Your task to perform on an android device: What is the recent news? Image 0: 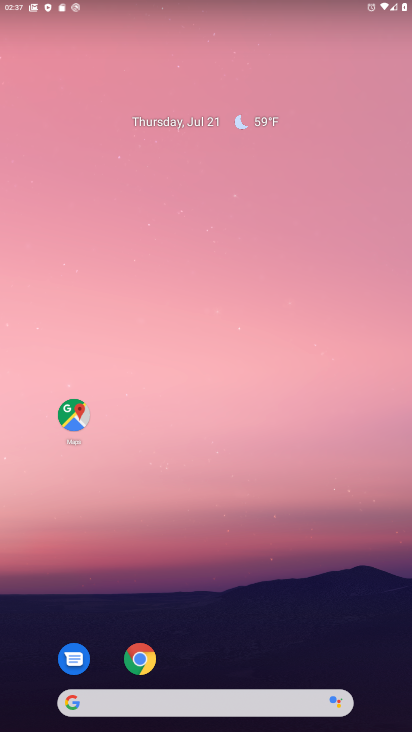
Step 0: drag from (313, 663) to (266, 166)
Your task to perform on an android device: What is the recent news? Image 1: 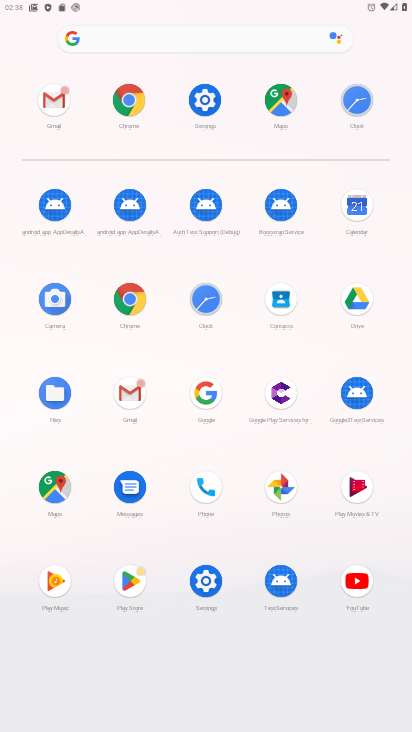
Step 1: click (131, 97)
Your task to perform on an android device: What is the recent news? Image 2: 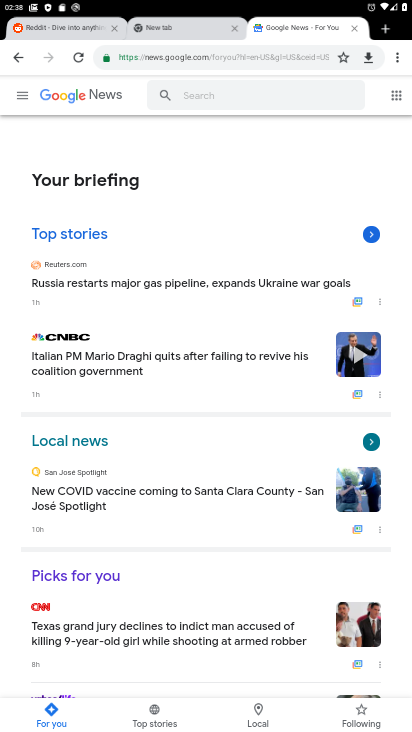
Step 2: click (206, 52)
Your task to perform on an android device: What is the recent news? Image 3: 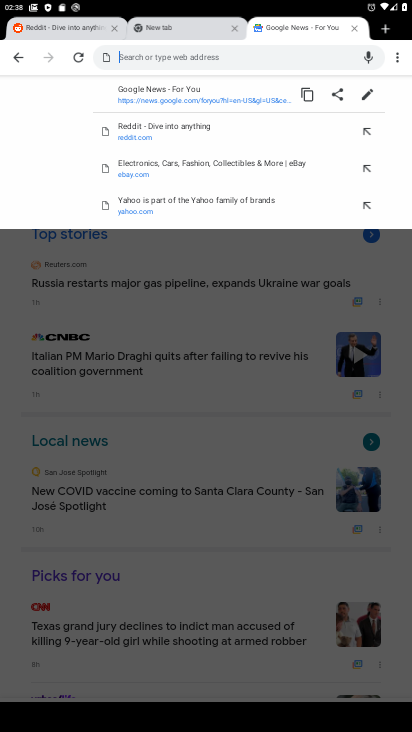
Step 3: type "news"
Your task to perform on an android device: What is the recent news? Image 4: 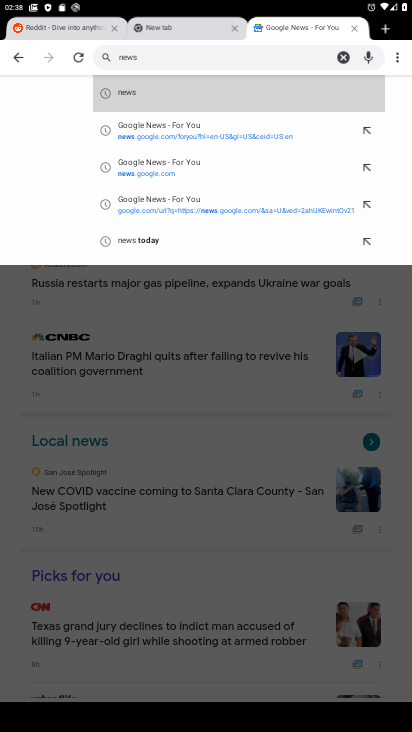
Step 4: click (133, 92)
Your task to perform on an android device: What is the recent news? Image 5: 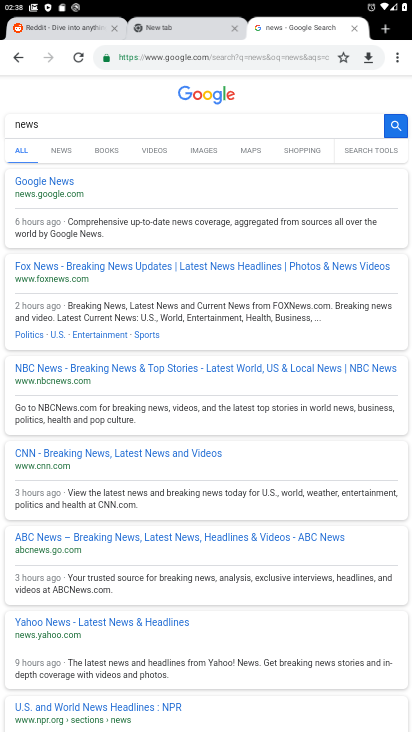
Step 5: click (50, 182)
Your task to perform on an android device: What is the recent news? Image 6: 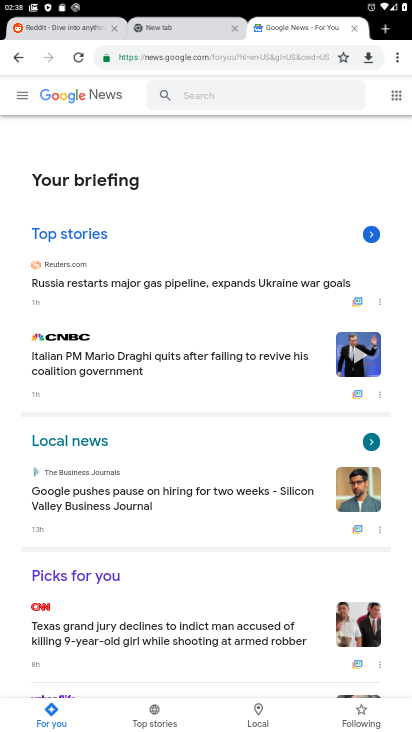
Step 6: task complete